Your task to perform on an android device: Go to CNN.com Image 0: 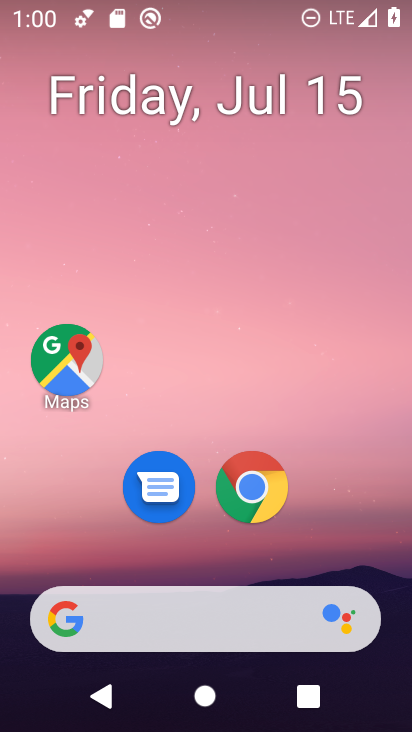
Step 0: click (276, 502)
Your task to perform on an android device: Go to CNN.com Image 1: 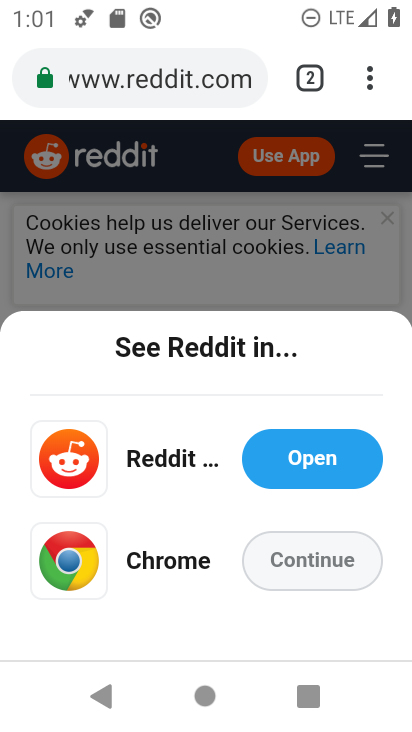
Step 1: click (186, 85)
Your task to perform on an android device: Go to CNN.com Image 2: 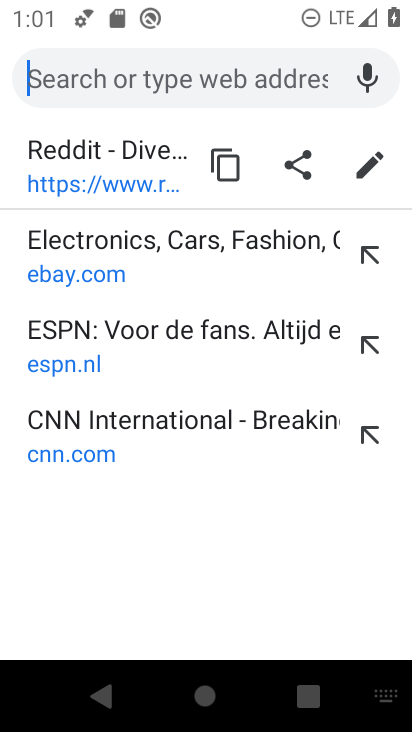
Step 2: click (133, 444)
Your task to perform on an android device: Go to CNN.com Image 3: 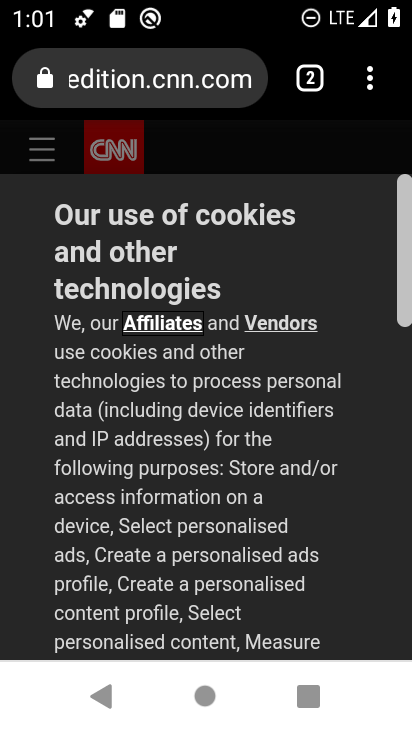
Step 3: task complete